Your task to perform on an android device: Open calendar and show me the first week of next month Image 0: 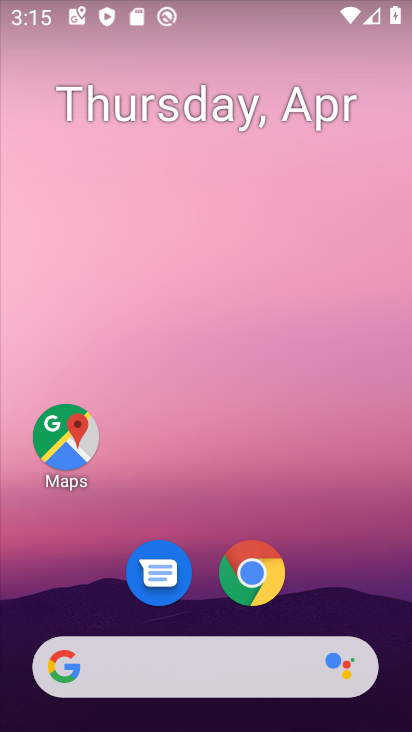
Step 0: drag from (376, 569) to (344, 348)
Your task to perform on an android device: Open calendar and show me the first week of next month Image 1: 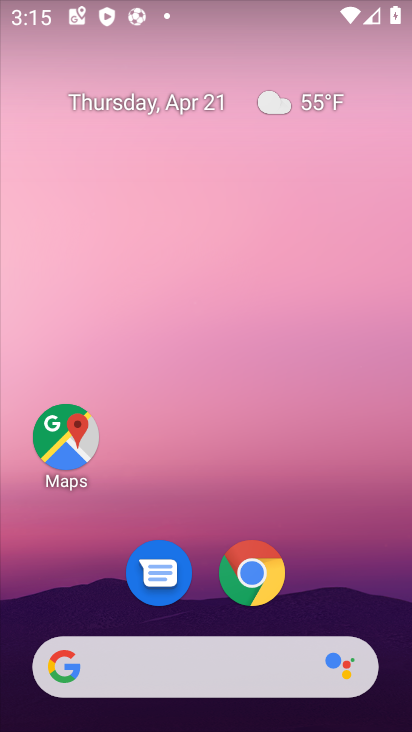
Step 1: drag from (375, 601) to (335, 150)
Your task to perform on an android device: Open calendar and show me the first week of next month Image 2: 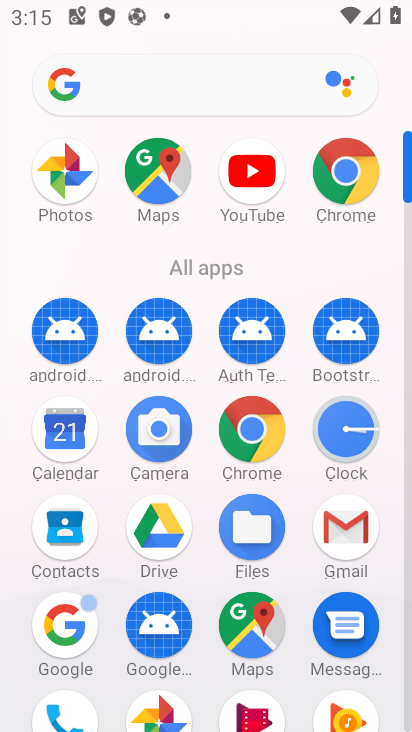
Step 2: click (60, 425)
Your task to perform on an android device: Open calendar and show me the first week of next month Image 3: 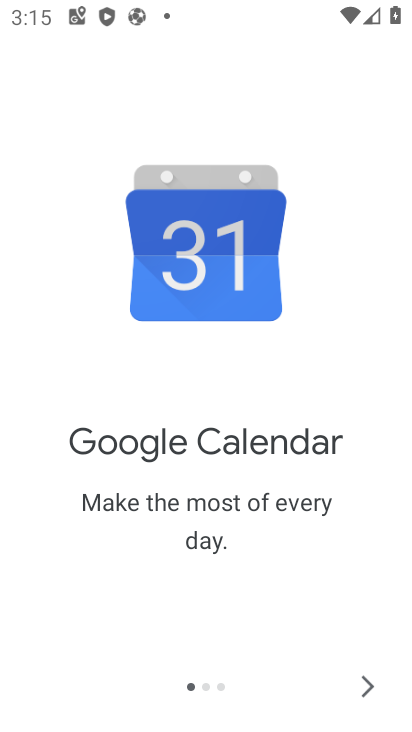
Step 3: click (363, 683)
Your task to perform on an android device: Open calendar and show me the first week of next month Image 4: 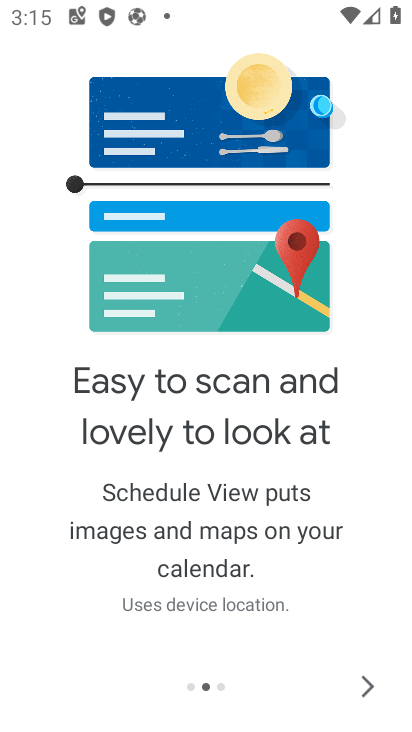
Step 4: click (363, 683)
Your task to perform on an android device: Open calendar and show me the first week of next month Image 5: 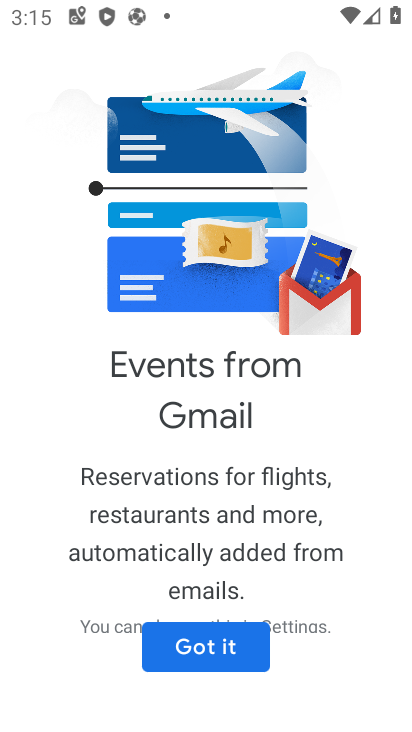
Step 5: click (213, 644)
Your task to perform on an android device: Open calendar and show me the first week of next month Image 6: 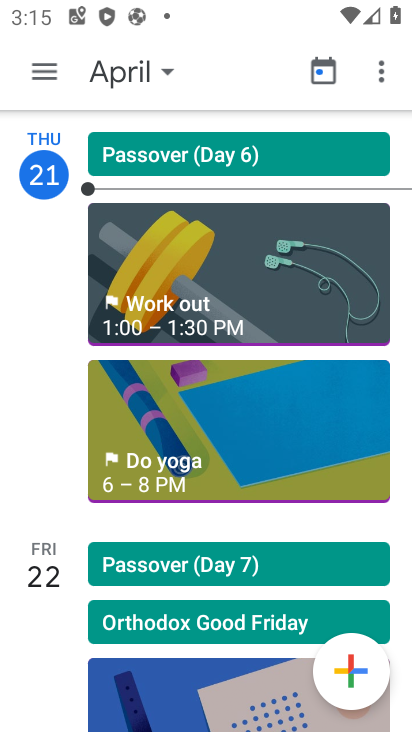
Step 6: click (51, 64)
Your task to perform on an android device: Open calendar and show me the first week of next month Image 7: 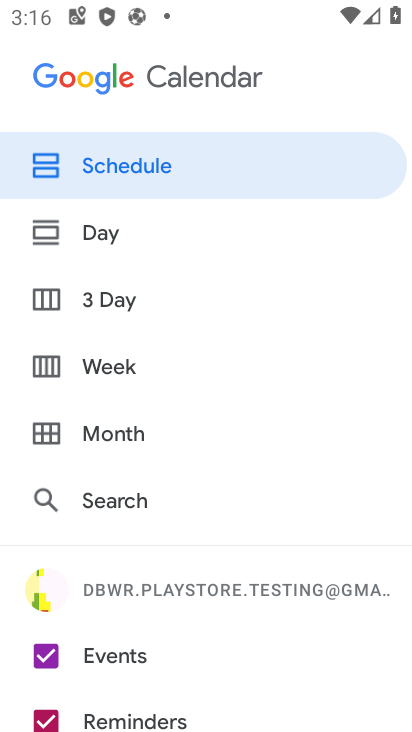
Step 7: click (116, 360)
Your task to perform on an android device: Open calendar and show me the first week of next month Image 8: 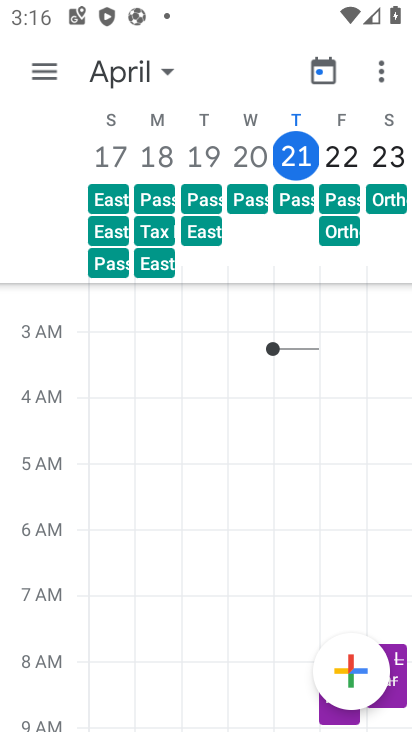
Step 8: click (165, 71)
Your task to perform on an android device: Open calendar and show me the first week of next month Image 9: 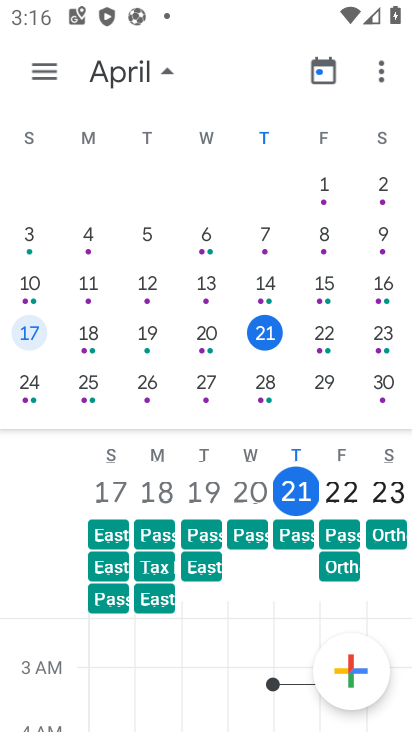
Step 9: drag from (335, 312) to (6, 286)
Your task to perform on an android device: Open calendar and show me the first week of next month Image 10: 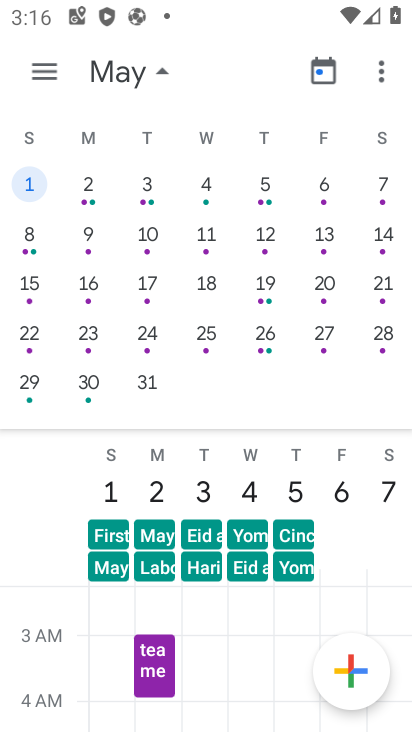
Step 10: click (31, 185)
Your task to perform on an android device: Open calendar and show me the first week of next month Image 11: 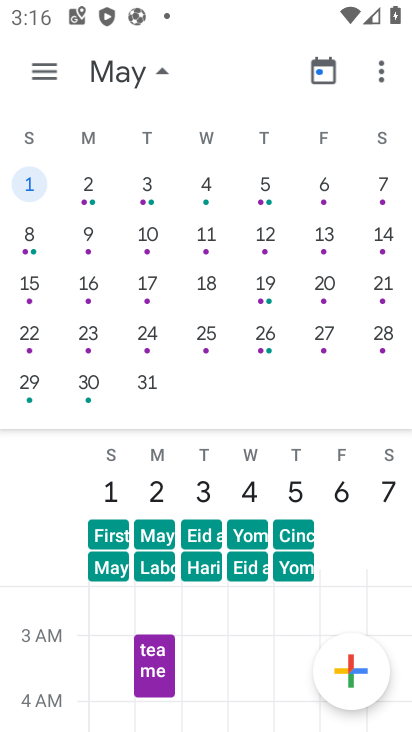
Step 11: task complete